Your task to perform on an android device: Go to Reddit.com Image 0: 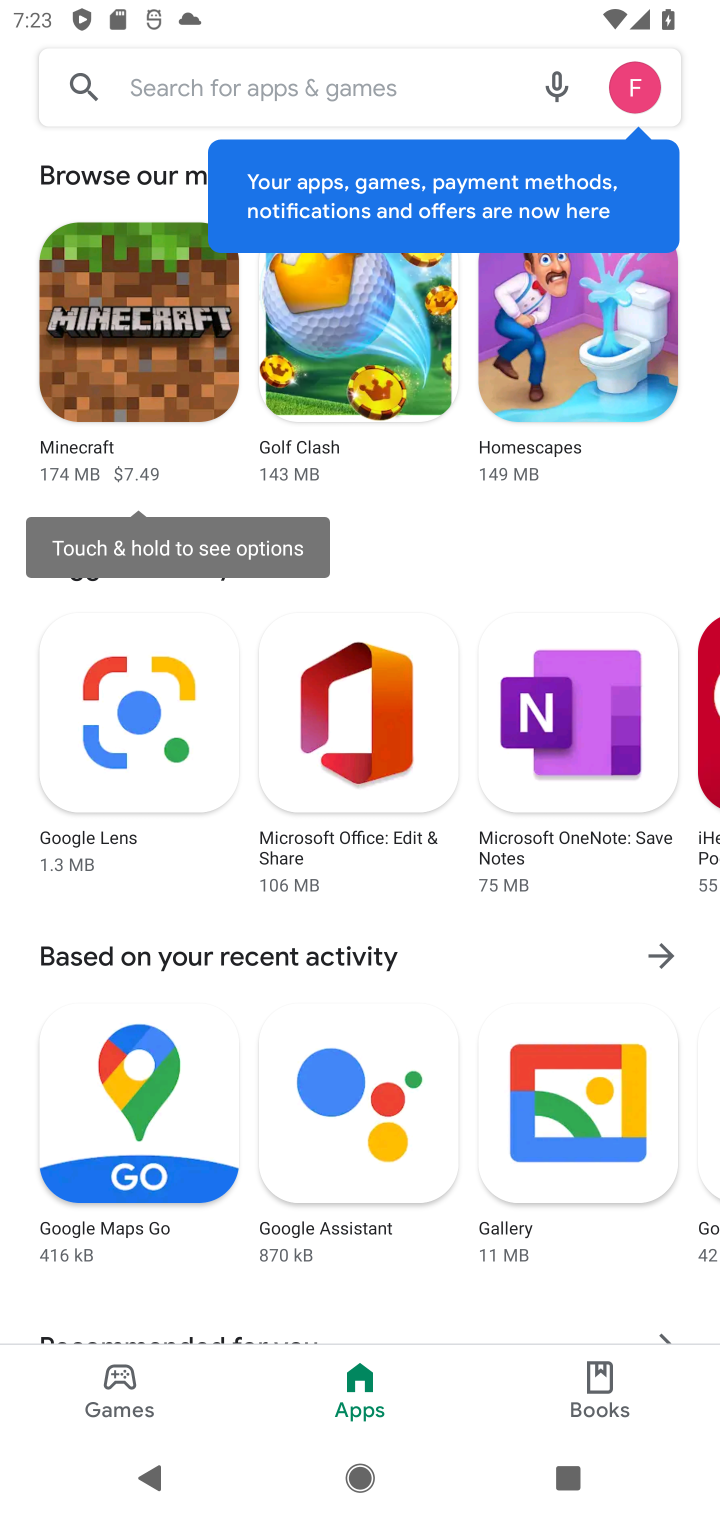
Step 0: press home button
Your task to perform on an android device: Go to Reddit.com Image 1: 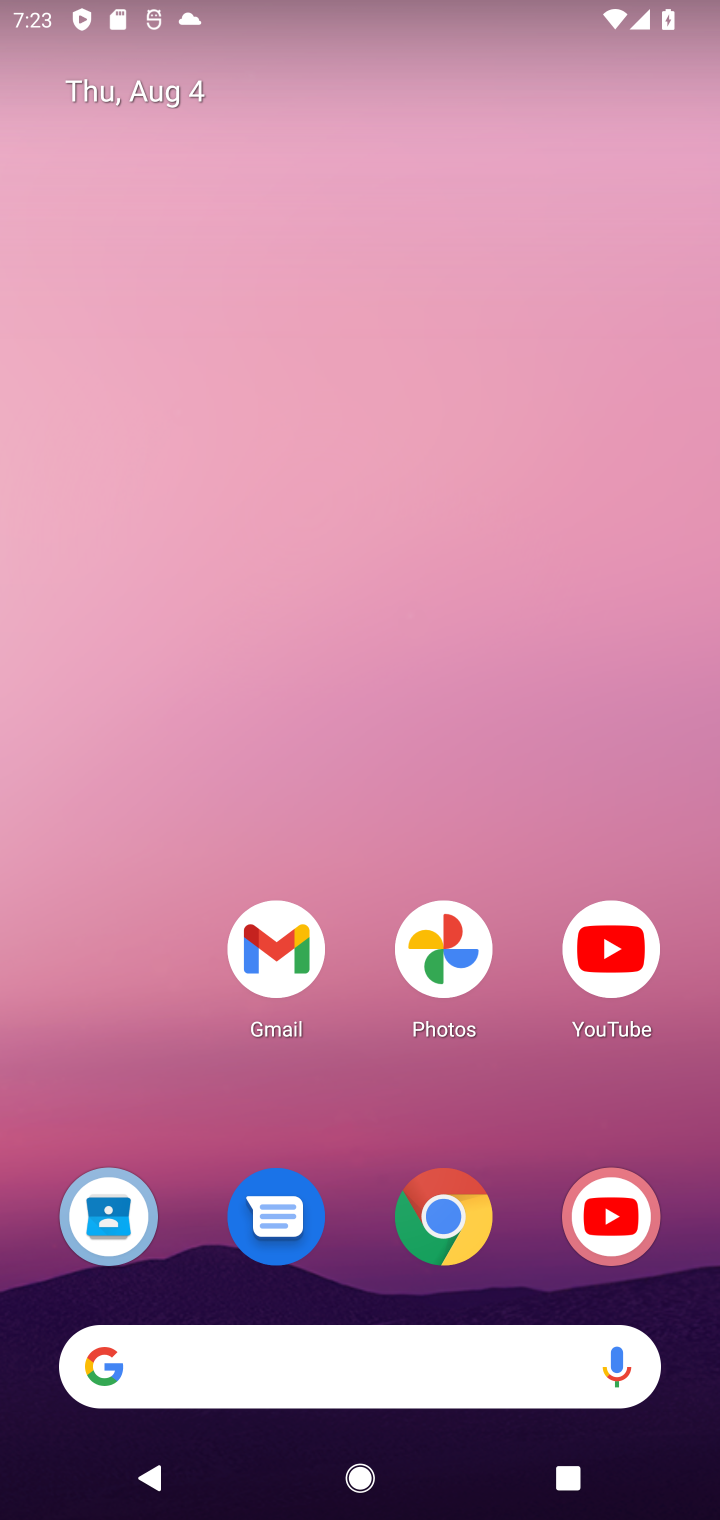
Step 1: click (440, 1205)
Your task to perform on an android device: Go to Reddit.com Image 2: 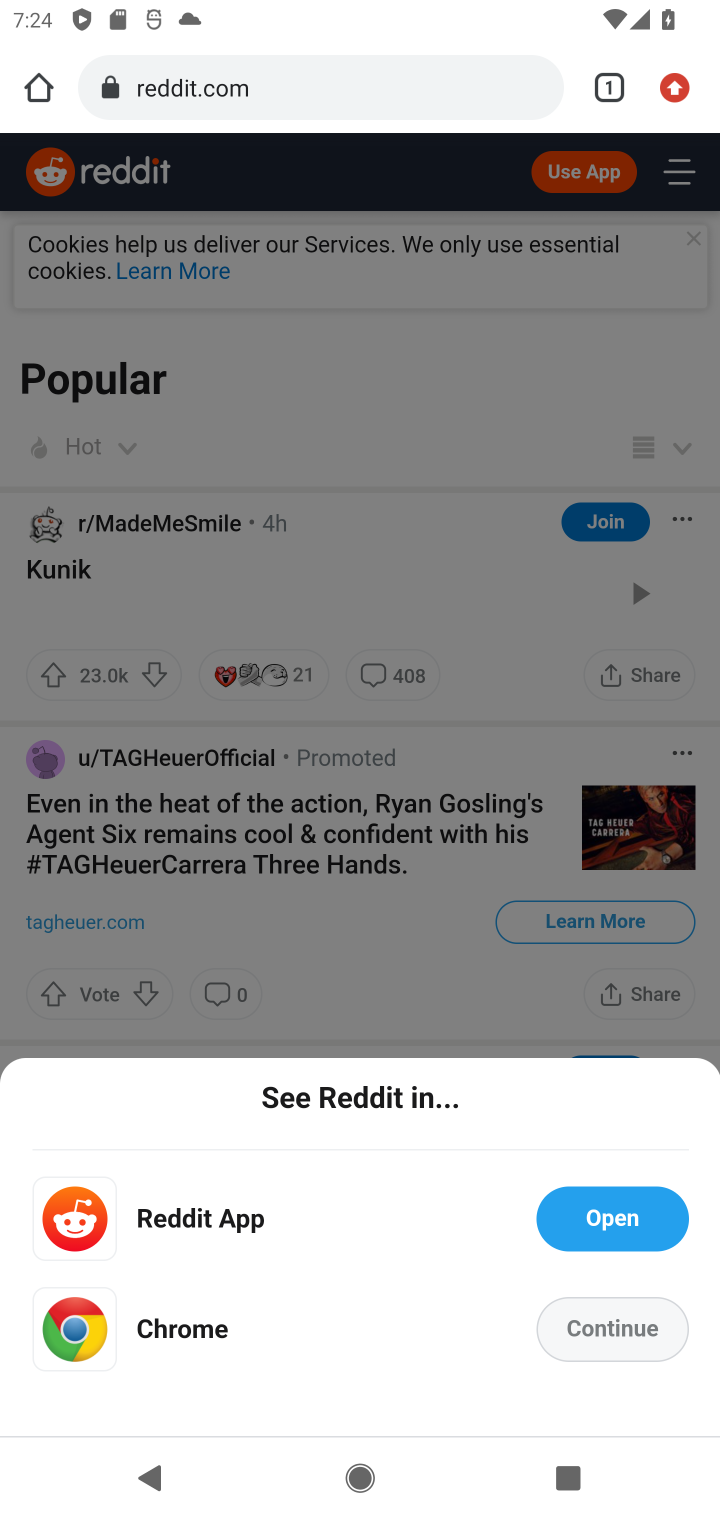
Step 2: task complete